Your task to perform on an android device: Go to calendar. Show me events next week Image 0: 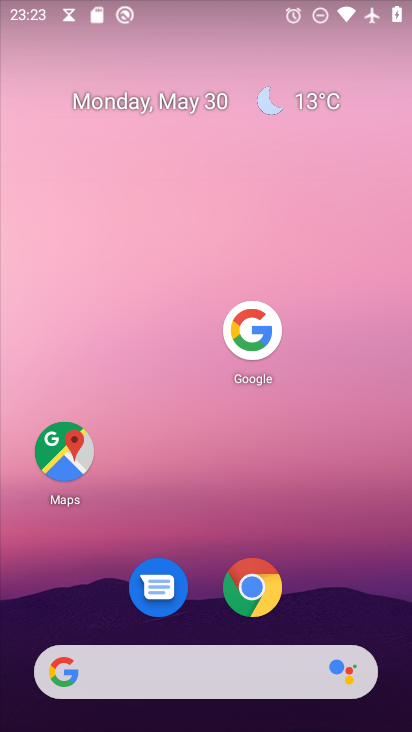
Step 0: press home button
Your task to perform on an android device: Go to calendar. Show me events next week Image 1: 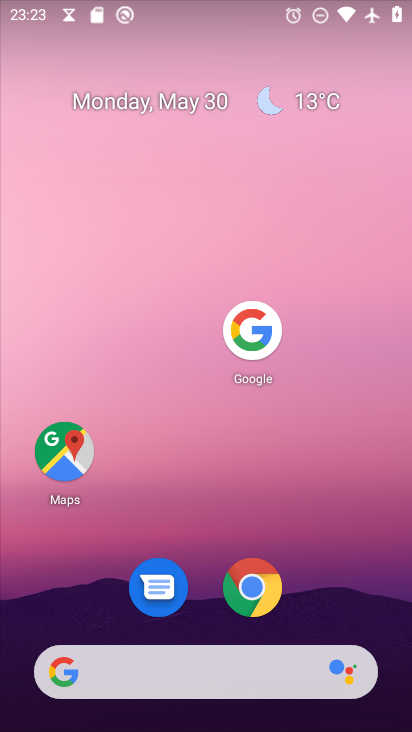
Step 1: drag from (178, 676) to (295, 127)
Your task to perform on an android device: Go to calendar. Show me events next week Image 2: 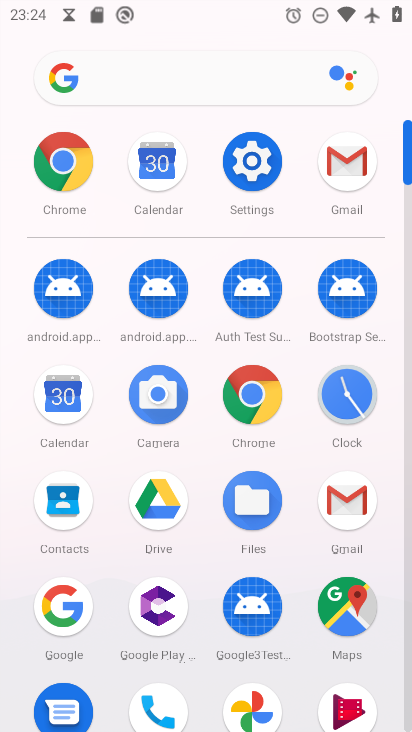
Step 2: click (59, 400)
Your task to perform on an android device: Go to calendar. Show me events next week Image 3: 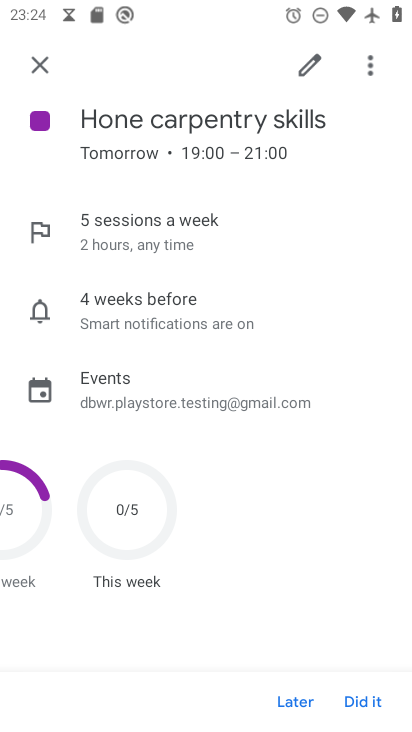
Step 3: click (43, 63)
Your task to perform on an android device: Go to calendar. Show me events next week Image 4: 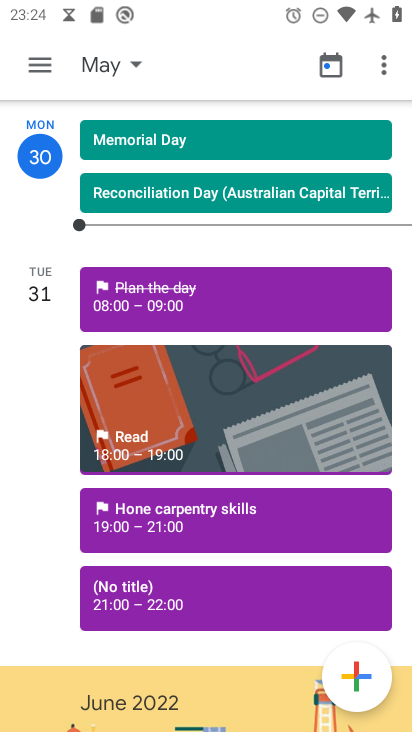
Step 4: click (116, 62)
Your task to perform on an android device: Go to calendar. Show me events next week Image 5: 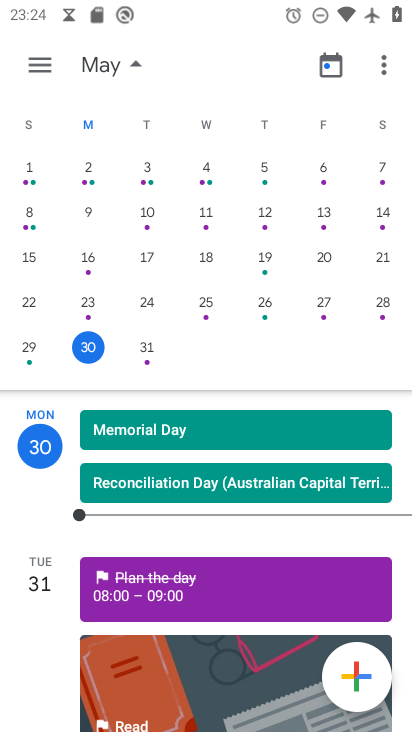
Step 5: drag from (344, 290) to (21, 243)
Your task to perform on an android device: Go to calendar. Show me events next week Image 6: 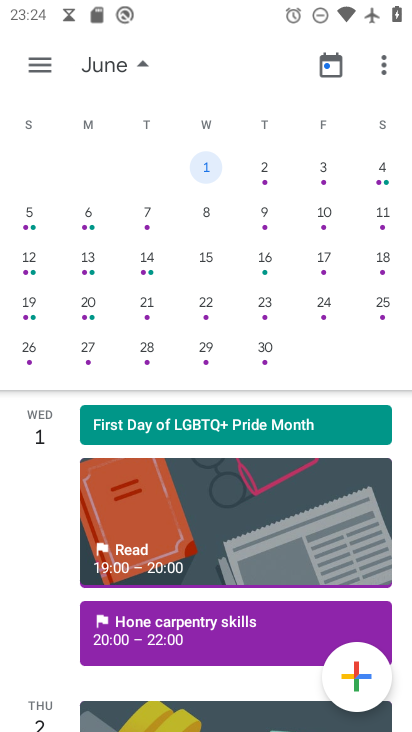
Step 6: click (20, 215)
Your task to perform on an android device: Go to calendar. Show me events next week Image 7: 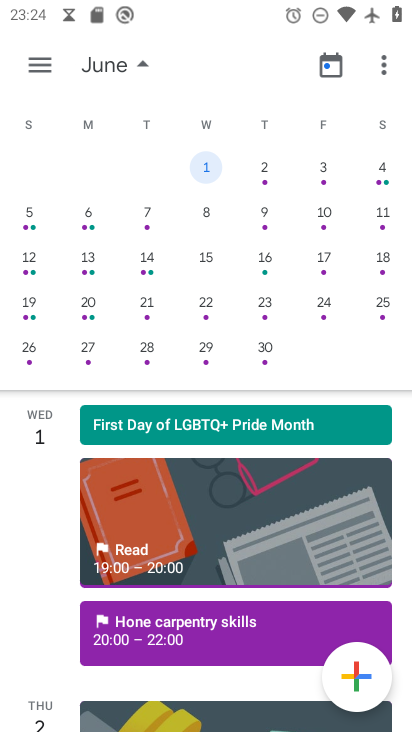
Step 7: click (32, 219)
Your task to perform on an android device: Go to calendar. Show me events next week Image 8: 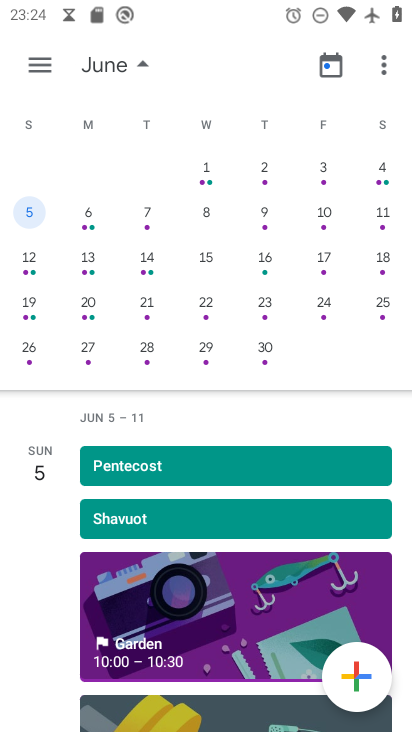
Step 8: click (42, 69)
Your task to perform on an android device: Go to calendar. Show me events next week Image 9: 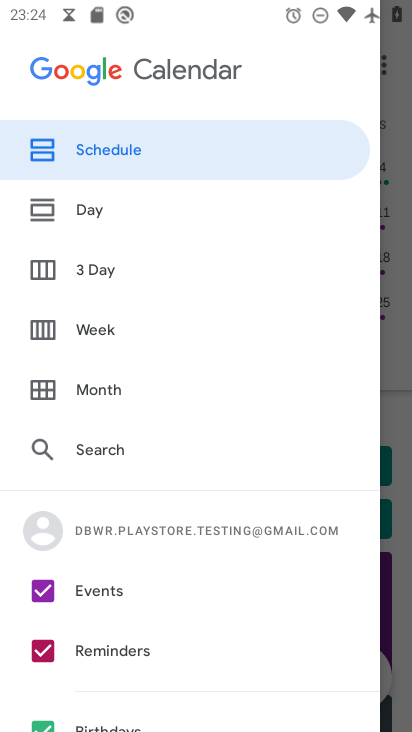
Step 9: click (102, 333)
Your task to perform on an android device: Go to calendar. Show me events next week Image 10: 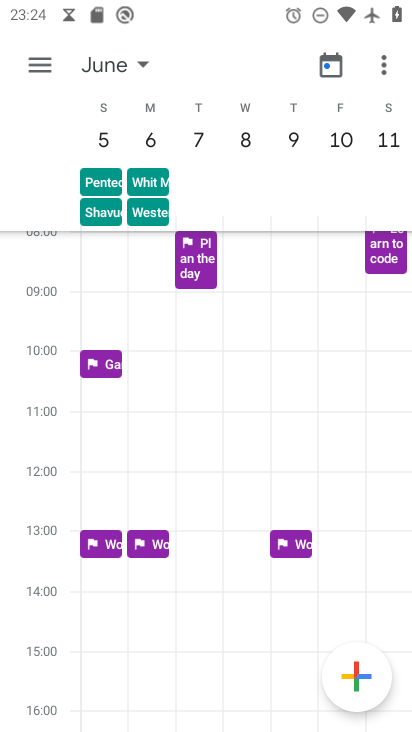
Step 10: click (50, 64)
Your task to perform on an android device: Go to calendar. Show me events next week Image 11: 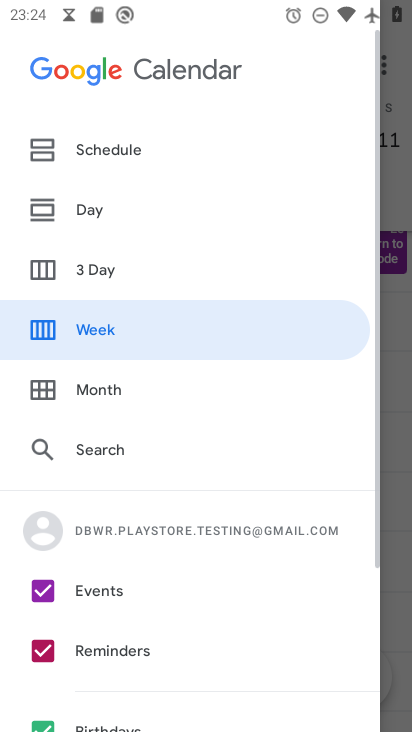
Step 11: click (119, 150)
Your task to perform on an android device: Go to calendar. Show me events next week Image 12: 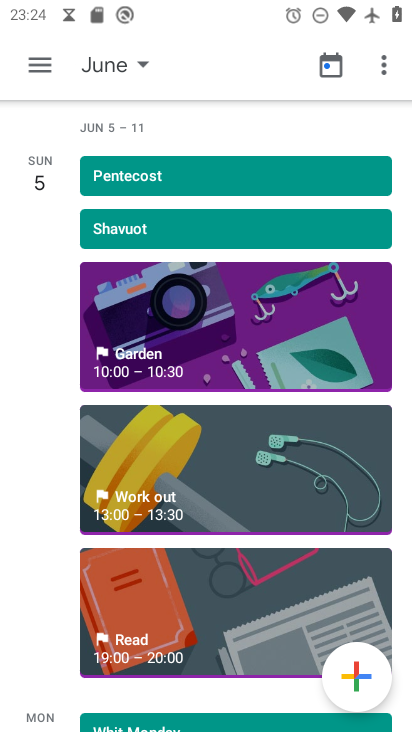
Step 12: click (275, 347)
Your task to perform on an android device: Go to calendar. Show me events next week Image 13: 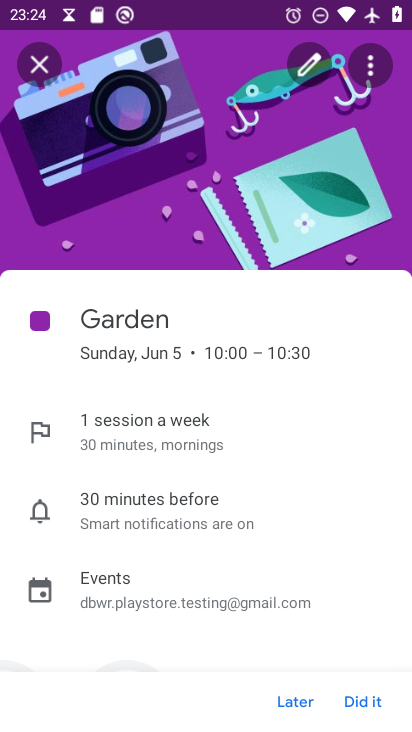
Step 13: task complete